Your task to perform on an android device: turn vacation reply on in the gmail app Image 0: 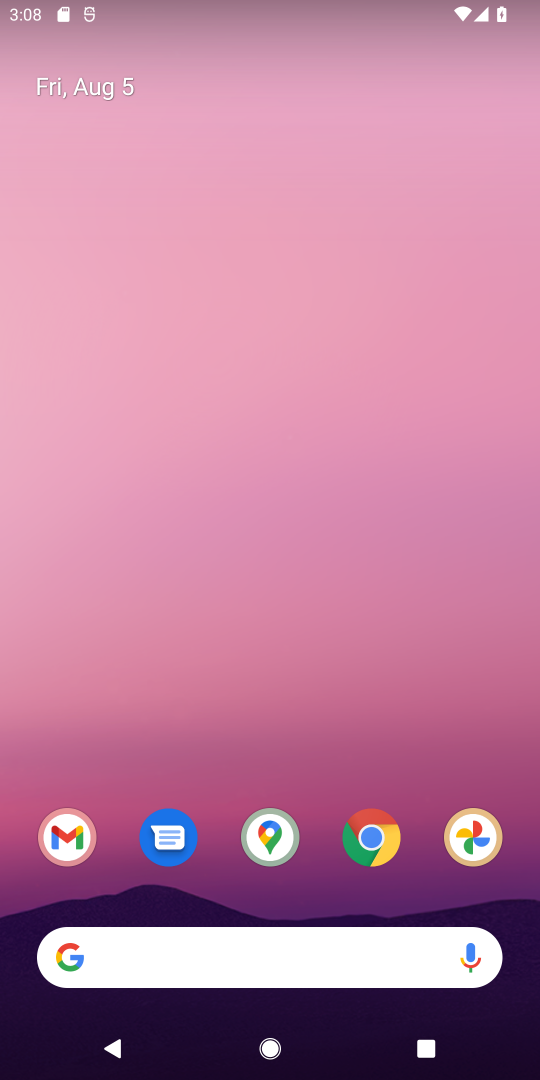
Step 0: click (202, 282)
Your task to perform on an android device: turn vacation reply on in the gmail app Image 1: 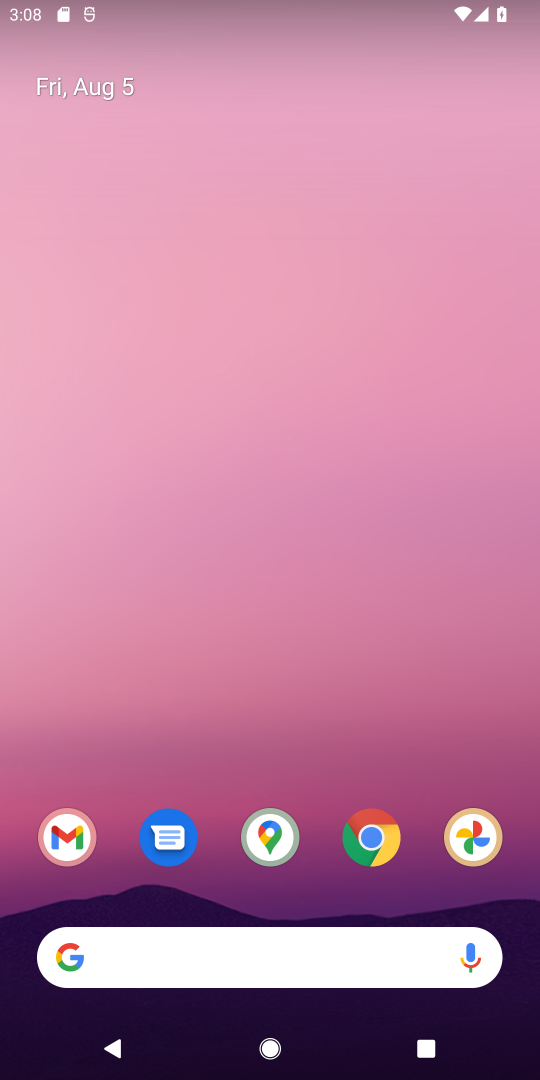
Step 1: drag from (264, 829) to (150, 451)
Your task to perform on an android device: turn vacation reply on in the gmail app Image 2: 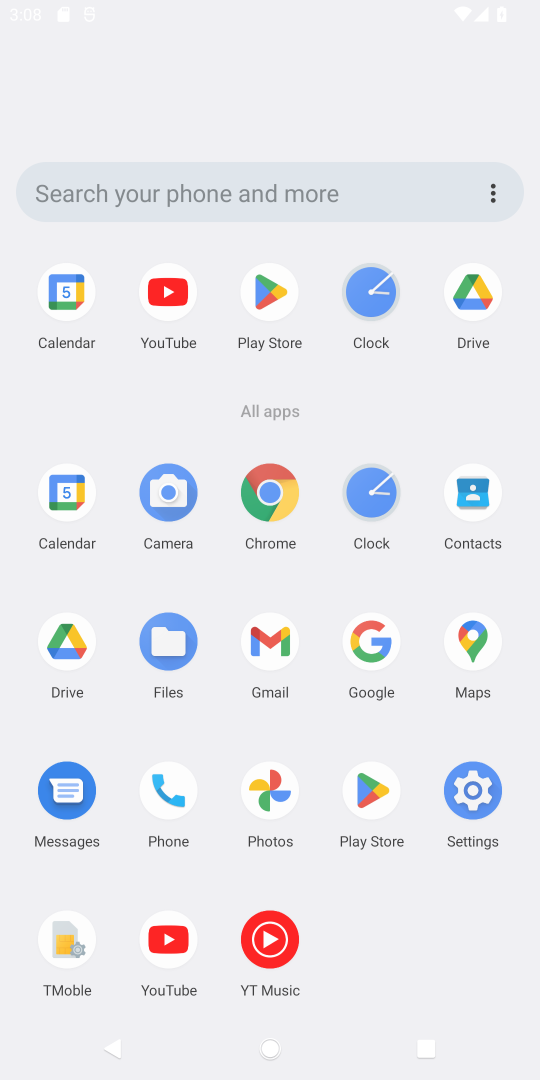
Step 2: drag from (316, 877) to (273, 187)
Your task to perform on an android device: turn vacation reply on in the gmail app Image 3: 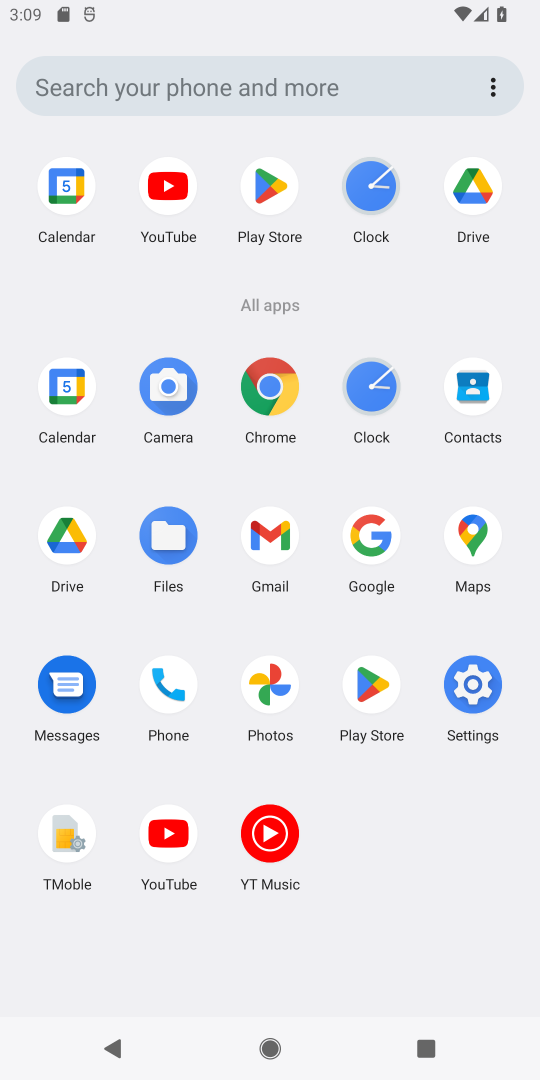
Step 3: click (260, 526)
Your task to perform on an android device: turn vacation reply on in the gmail app Image 4: 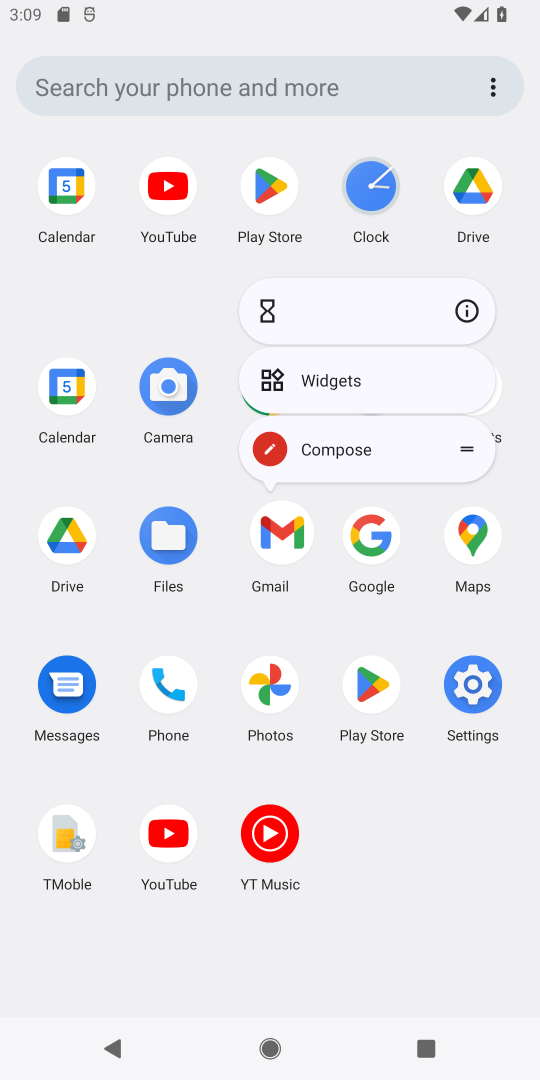
Step 4: click (272, 523)
Your task to perform on an android device: turn vacation reply on in the gmail app Image 5: 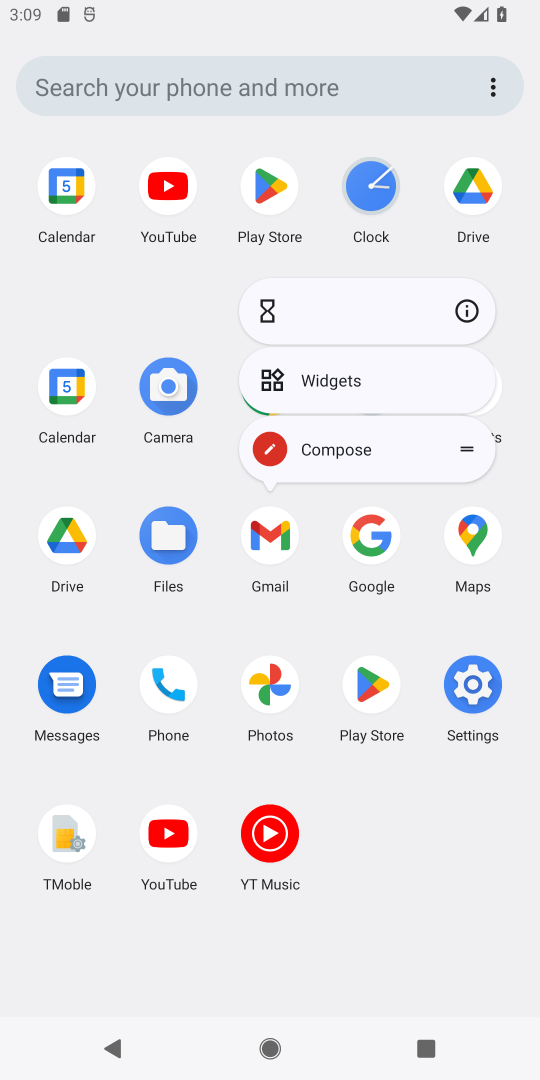
Step 5: click (274, 521)
Your task to perform on an android device: turn vacation reply on in the gmail app Image 6: 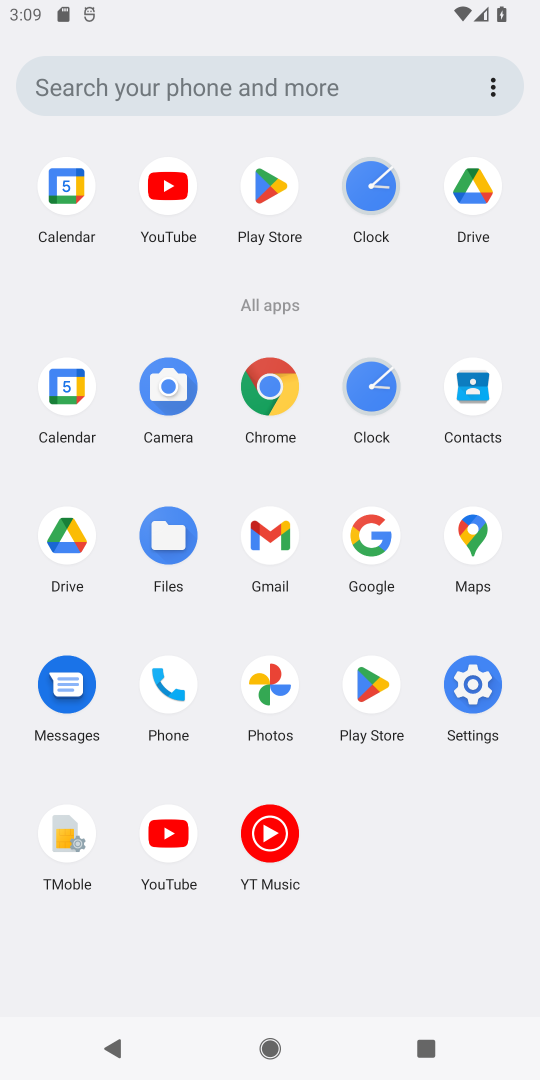
Step 6: click (274, 518)
Your task to perform on an android device: turn vacation reply on in the gmail app Image 7: 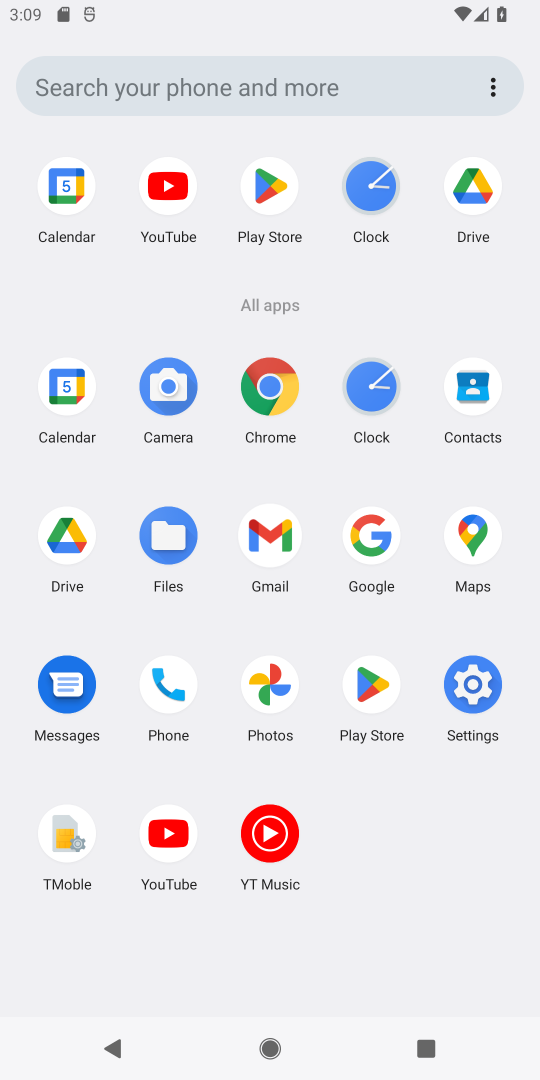
Step 7: click (273, 519)
Your task to perform on an android device: turn vacation reply on in the gmail app Image 8: 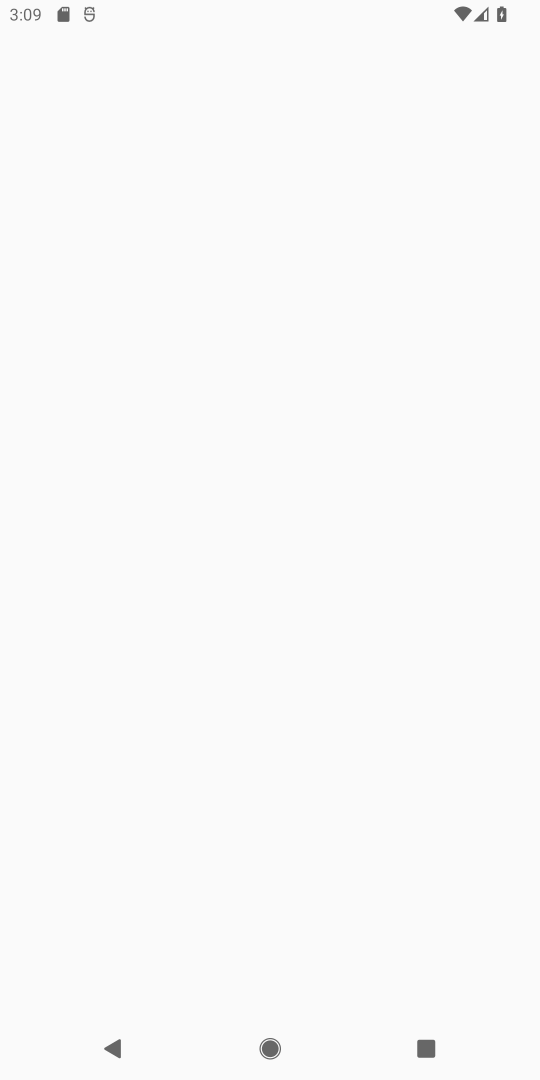
Step 8: click (277, 515)
Your task to perform on an android device: turn vacation reply on in the gmail app Image 9: 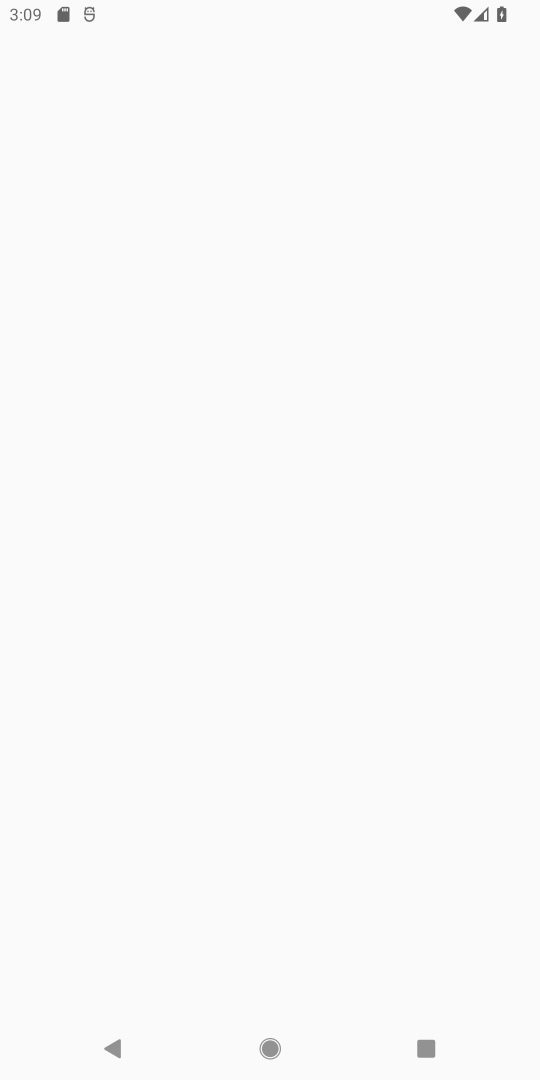
Step 9: drag from (232, 293) to (252, 392)
Your task to perform on an android device: turn vacation reply on in the gmail app Image 10: 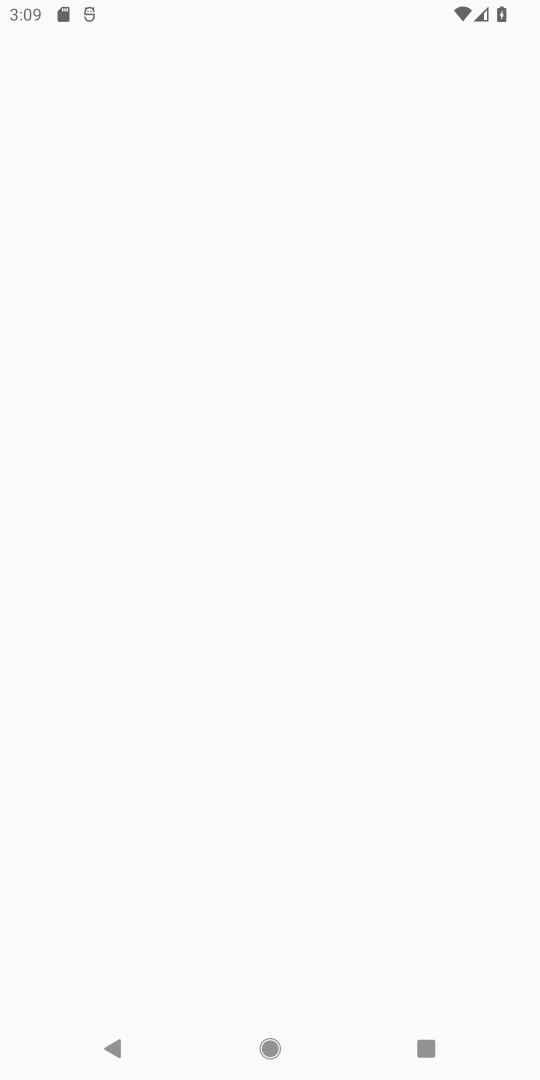
Step 10: drag from (203, 184) to (137, 649)
Your task to perform on an android device: turn vacation reply on in the gmail app Image 11: 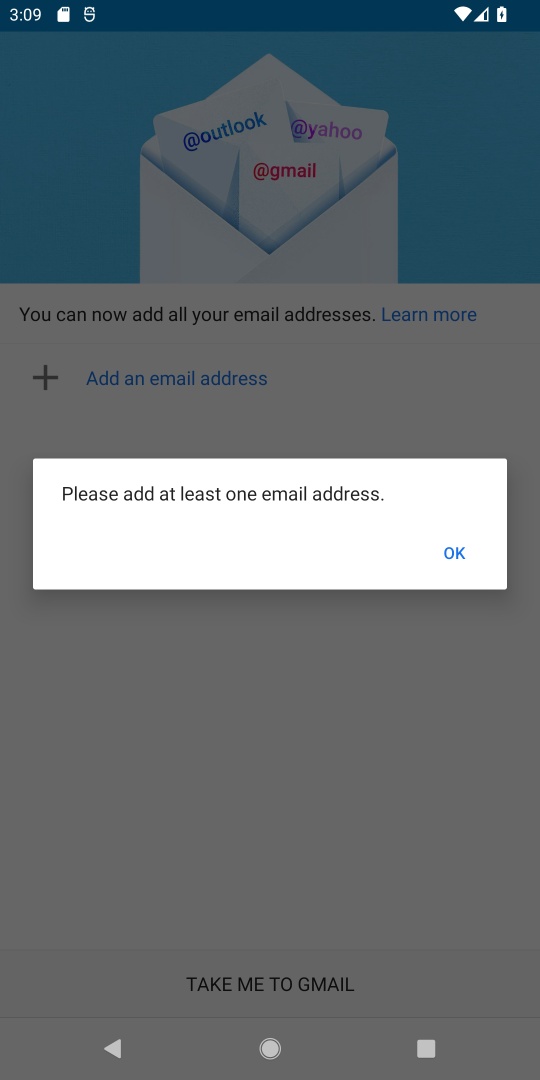
Step 11: drag from (175, 460) to (183, 521)
Your task to perform on an android device: turn vacation reply on in the gmail app Image 12: 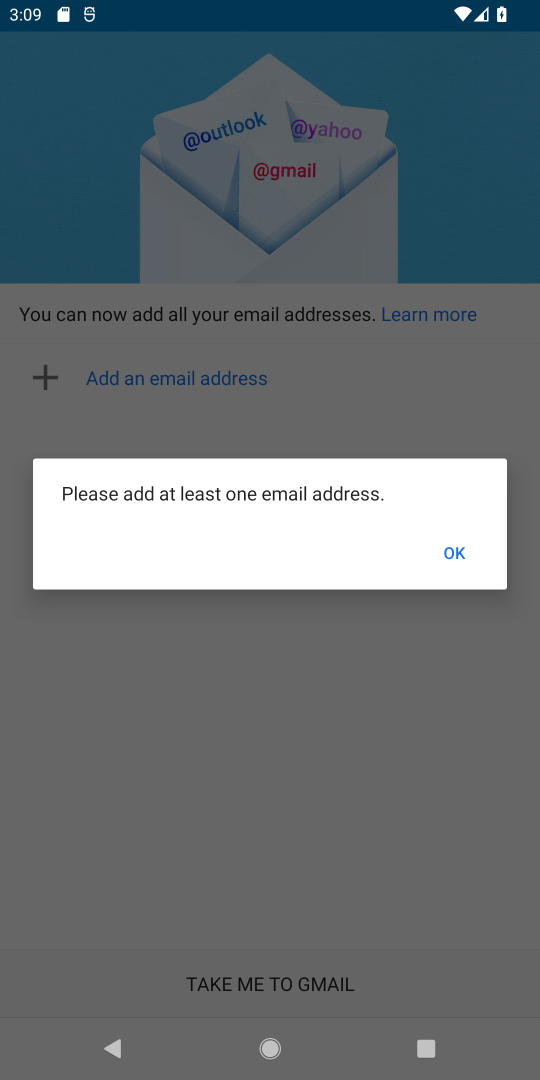
Step 12: click (454, 547)
Your task to perform on an android device: turn vacation reply on in the gmail app Image 13: 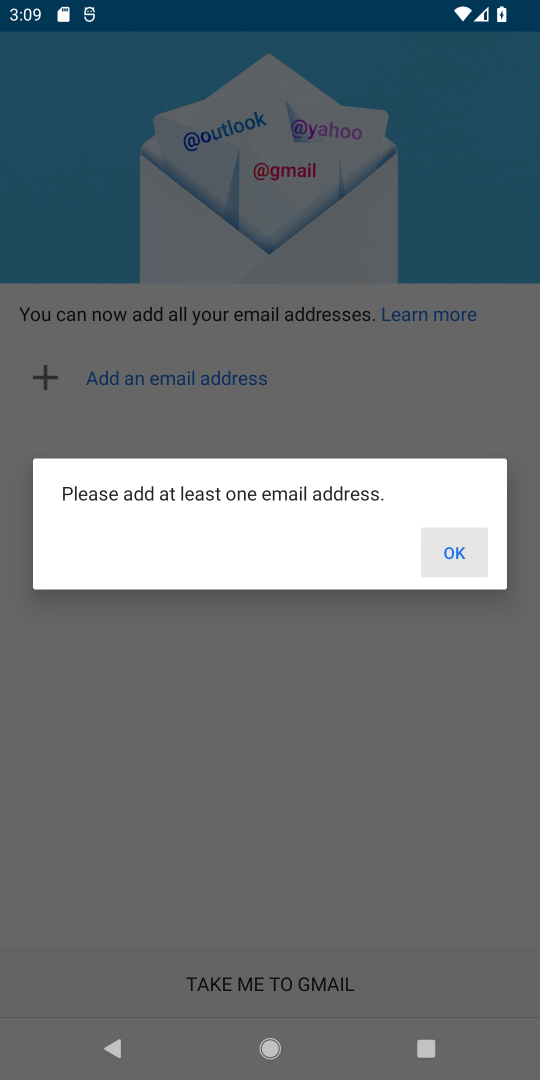
Step 13: click (448, 547)
Your task to perform on an android device: turn vacation reply on in the gmail app Image 14: 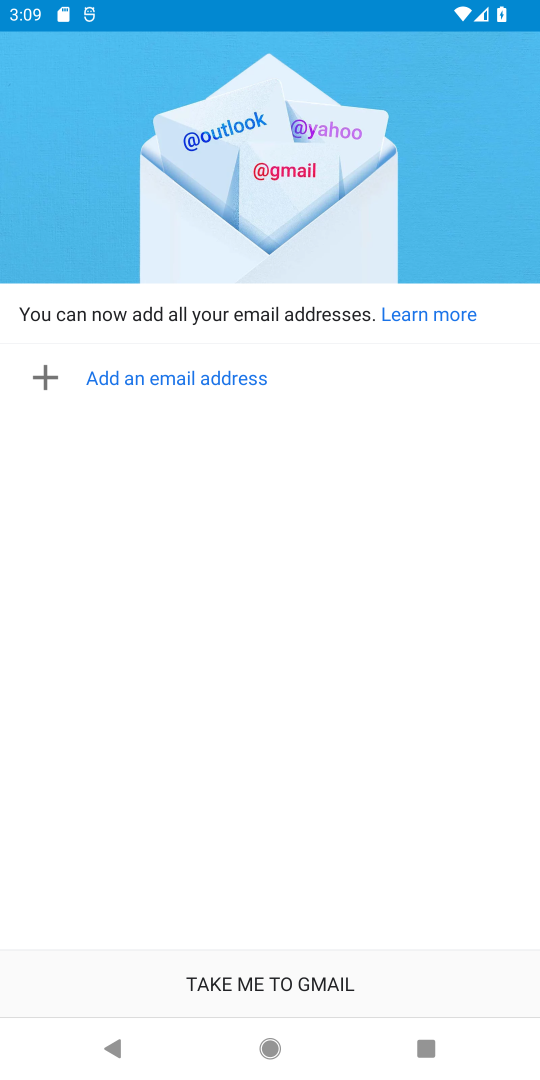
Step 14: click (448, 547)
Your task to perform on an android device: turn vacation reply on in the gmail app Image 15: 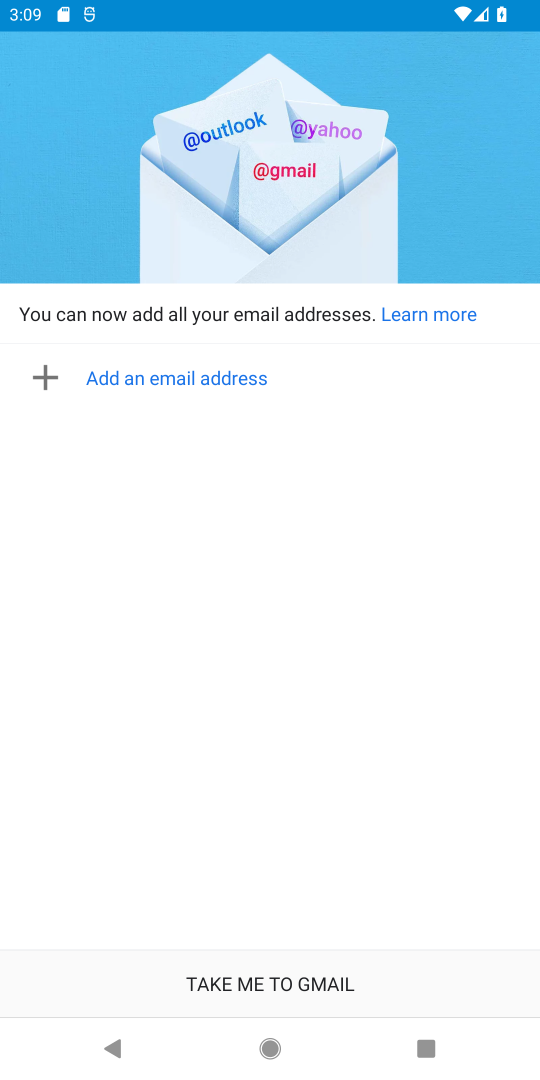
Step 15: click (394, 487)
Your task to perform on an android device: turn vacation reply on in the gmail app Image 16: 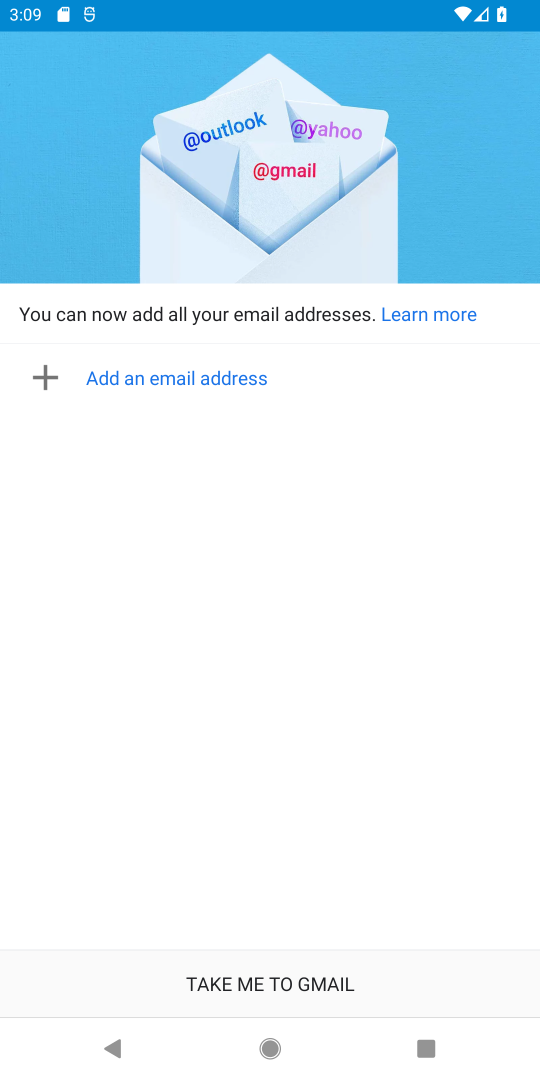
Step 16: click (301, 978)
Your task to perform on an android device: turn vacation reply on in the gmail app Image 17: 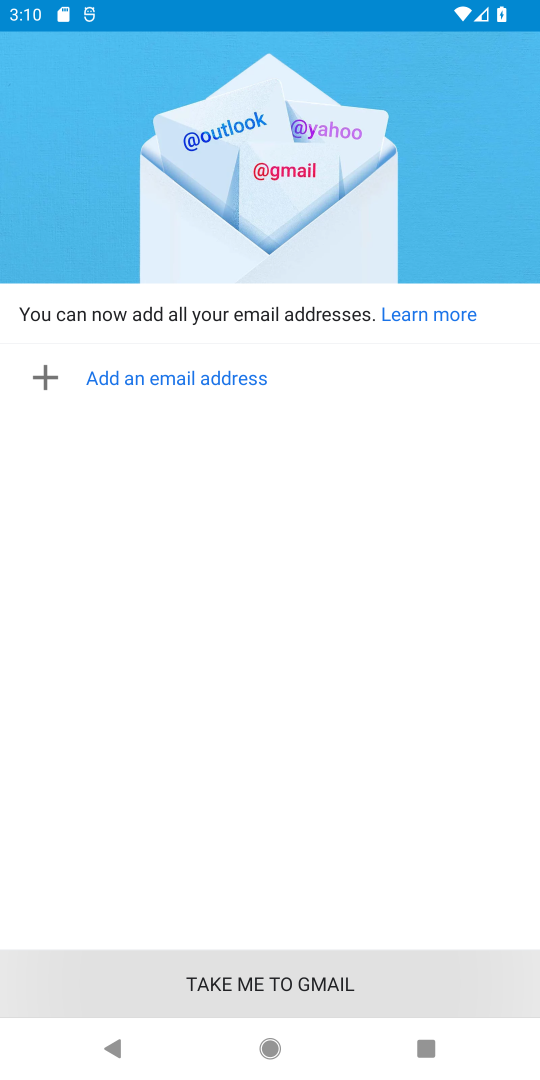
Step 17: click (300, 977)
Your task to perform on an android device: turn vacation reply on in the gmail app Image 18: 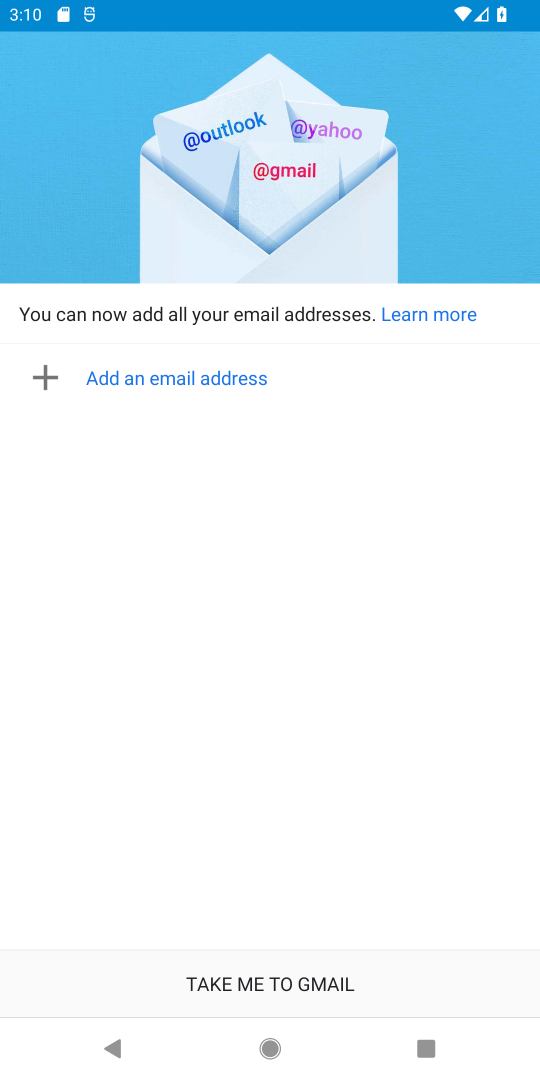
Step 18: click (457, 536)
Your task to perform on an android device: turn vacation reply on in the gmail app Image 19: 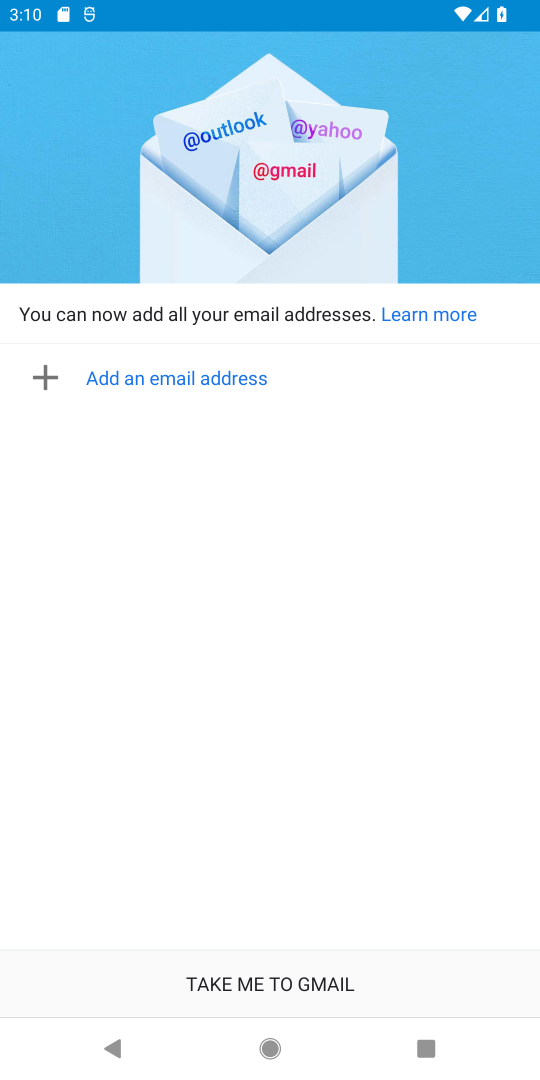
Step 19: task complete